Your task to perform on an android device: Open accessibility settings Image 0: 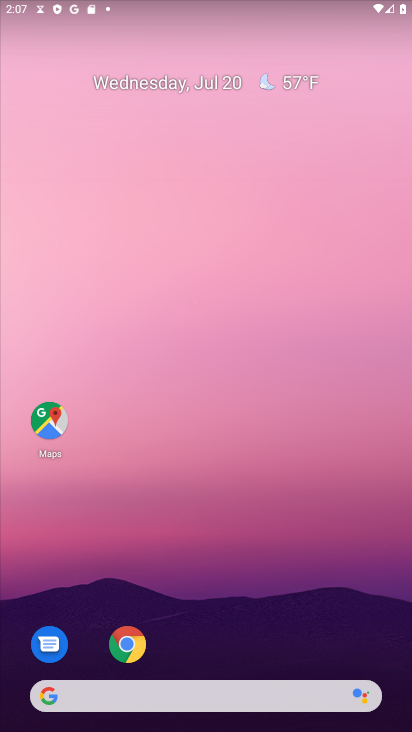
Step 0: drag from (310, 26) to (220, 17)
Your task to perform on an android device: Open accessibility settings Image 1: 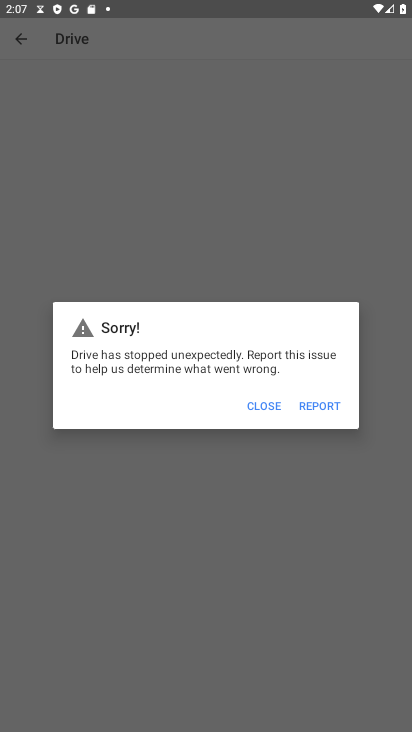
Step 1: press home button
Your task to perform on an android device: Open accessibility settings Image 2: 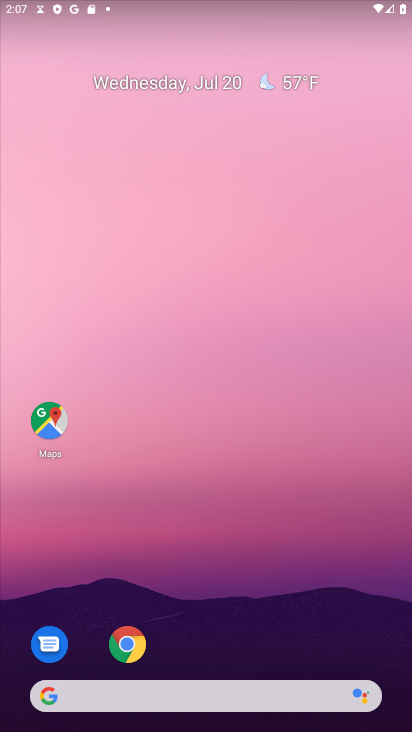
Step 2: drag from (205, 661) to (293, 36)
Your task to perform on an android device: Open accessibility settings Image 3: 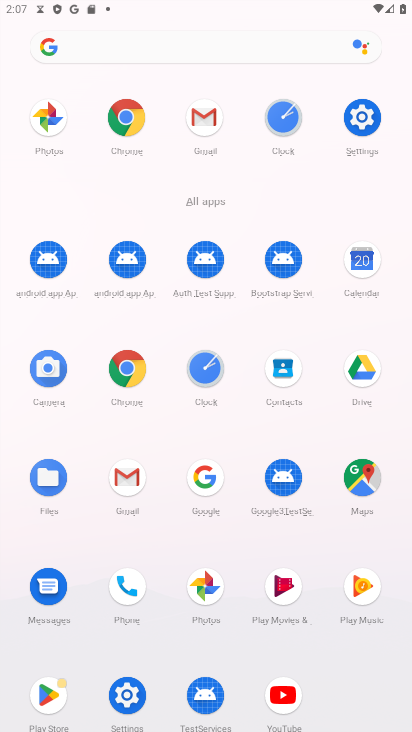
Step 3: click (350, 125)
Your task to perform on an android device: Open accessibility settings Image 4: 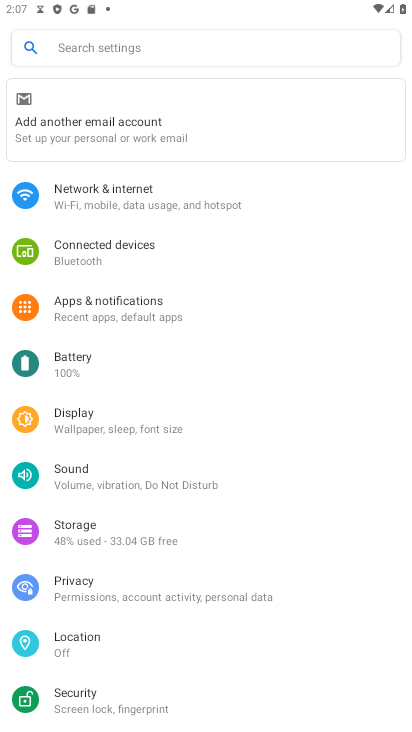
Step 4: drag from (234, 617) to (268, 115)
Your task to perform on an android device: Open accessibility settings Image 5: 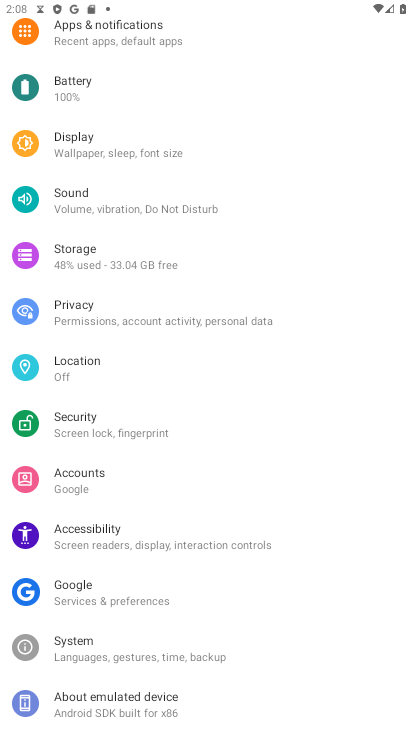
Step 5: click (72, 531)
Your task to perform on an android device: Open accessibility settings Image 6: 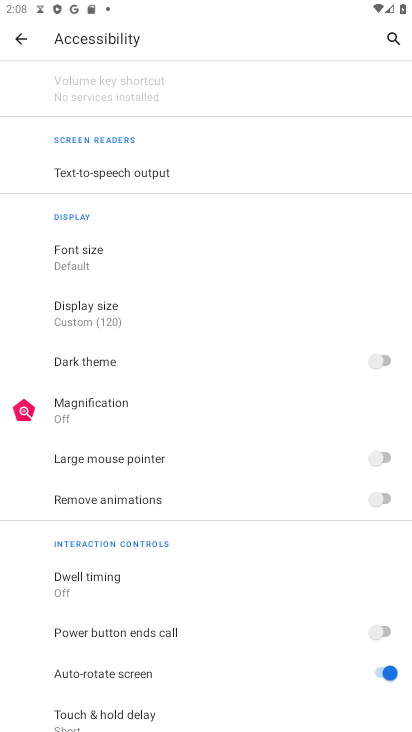
Step 6: task complete